Your task to perform on an android device: Go to Google maps Image 0: 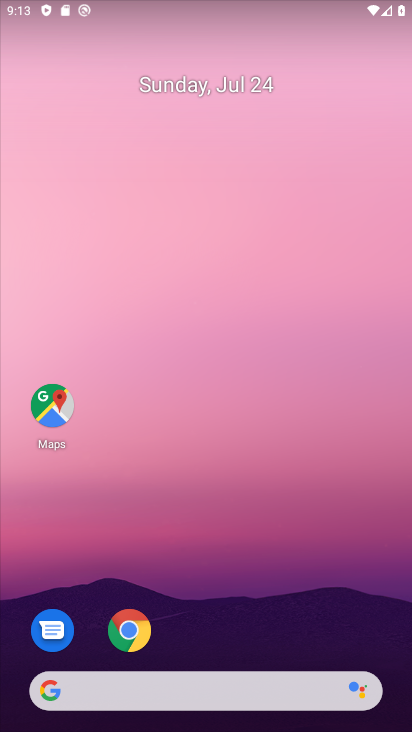
Step 0: click (45, 400)
Your task to perform on an android device: Go to Google maps Image 1: 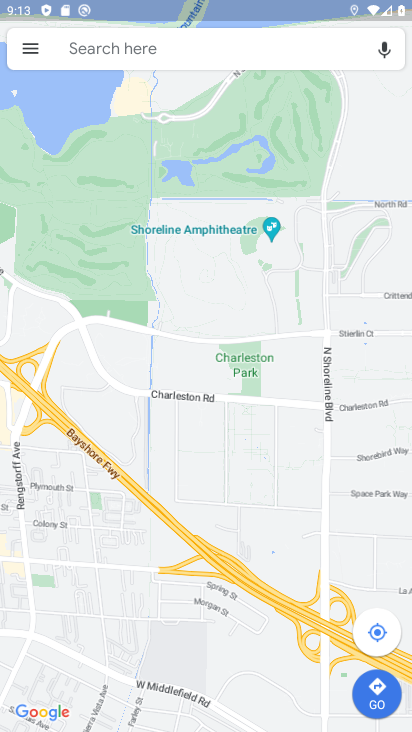
Step 1: task complete